Your task to perform on an android device: install app "Google Calendar" Image 0: 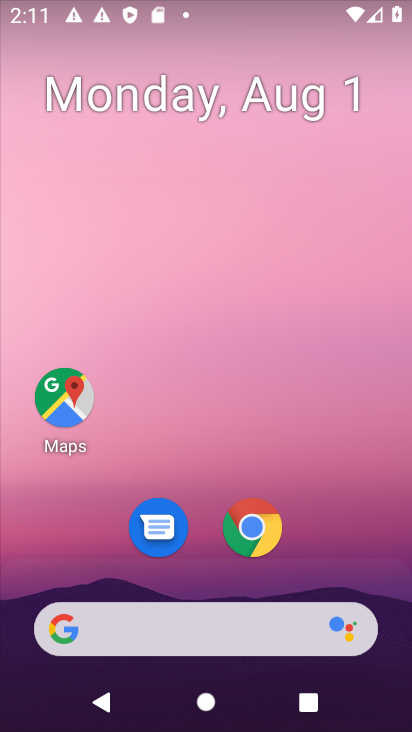
Step 0: drag from (271, 634) to (276, 6)
Your task to perform on an android device: install app "Google Calendar" Image 1: 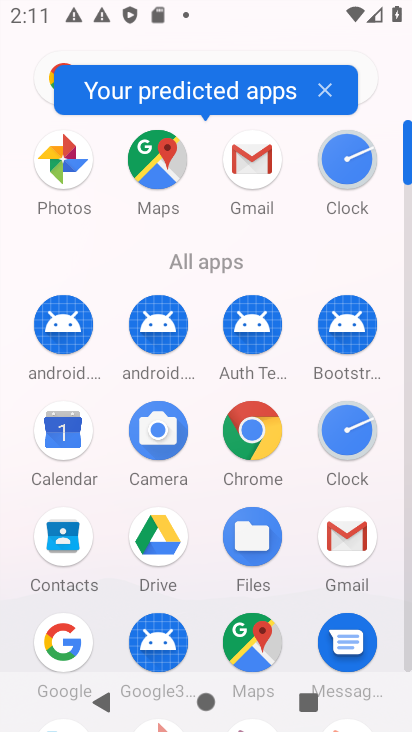
Step 1: drag from (308, 548) to (315, 187)
Your task to perform on an android device: install app "Google Calendar" Image 2: 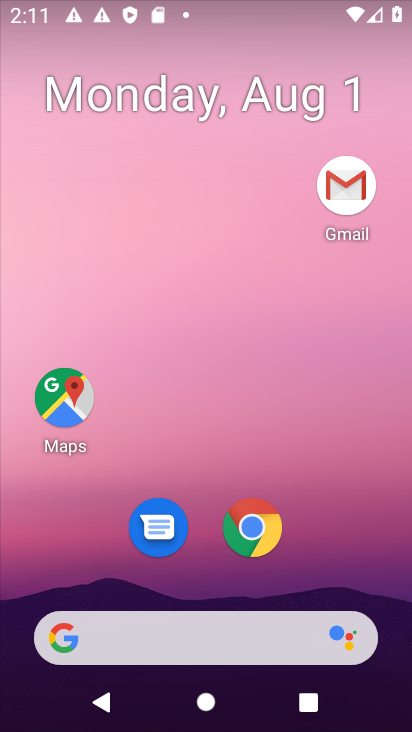
Step 2: drag from (257, 603) to (273, 79)
Your task to perform on an android device: install app "Google Calendar" Image 3: 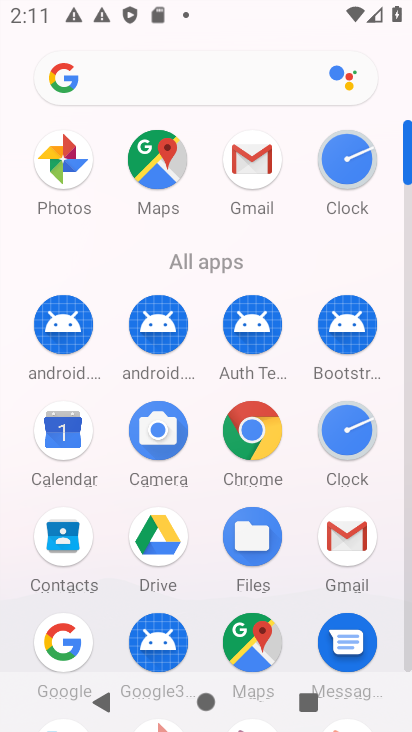
Step 3: drag from (283, 484) to (286, 30)
Your task to perform on an android device: install app "Google Calendar" Image 4: 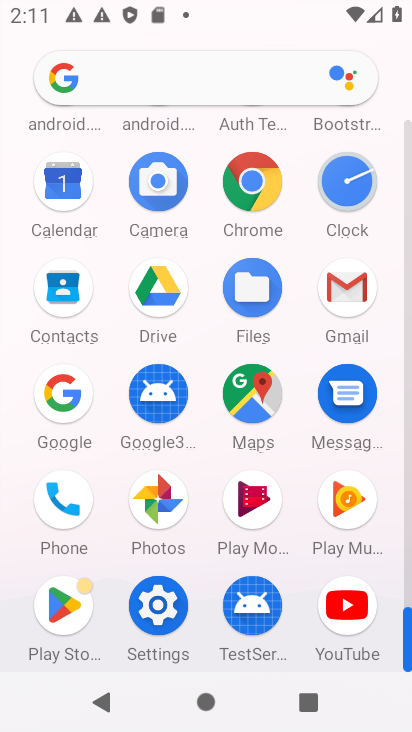
Step 4: click (59, 608)
Your task to perform on an android device: install app "Google Calendar" Image 5: 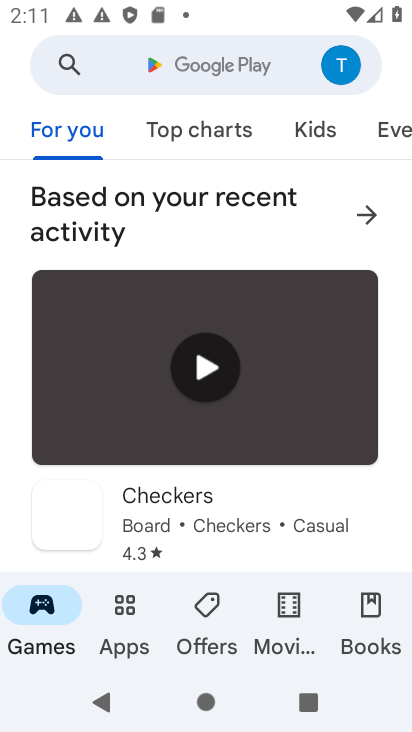
Step 5: click (218, 57)
Your task to perform on an android device: install app "Google Calendar" Image 6: 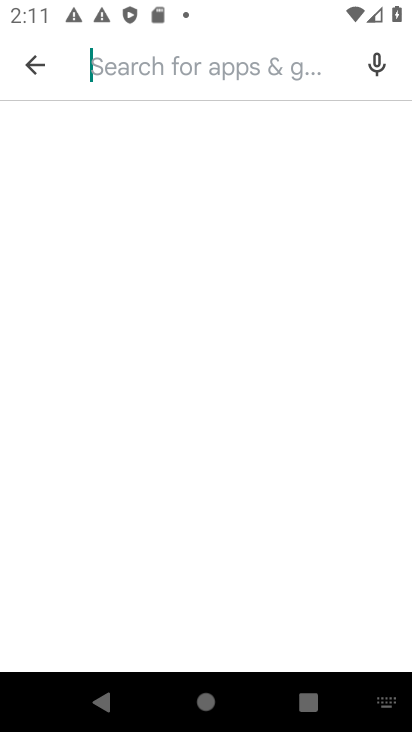
Step 6: type "Google calender"
Your task to perform on an android device: install app "Google Calendar" Image 7: 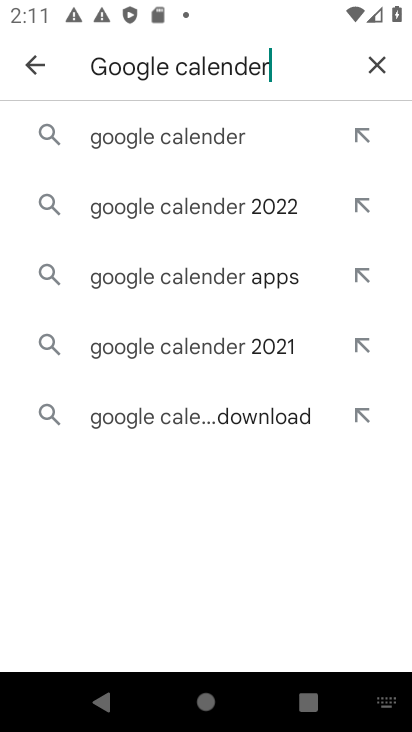
Step 7: click (159, 147)
Your task to perform on an android device: install app "Google Calendar" Image 8: 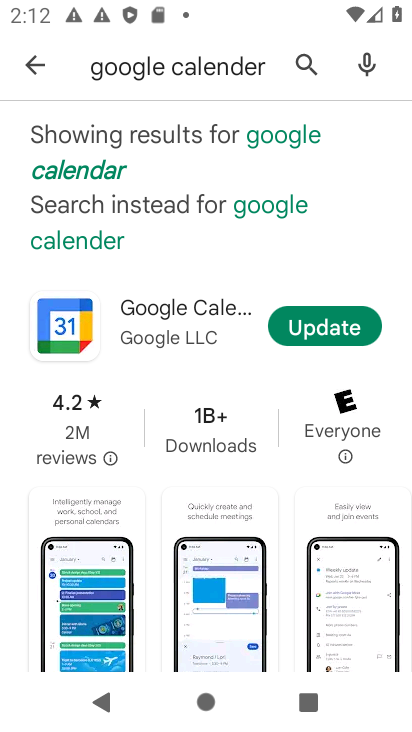
Step 8: task complete